Your task to perform on an android device: Show me recent news Image 0: 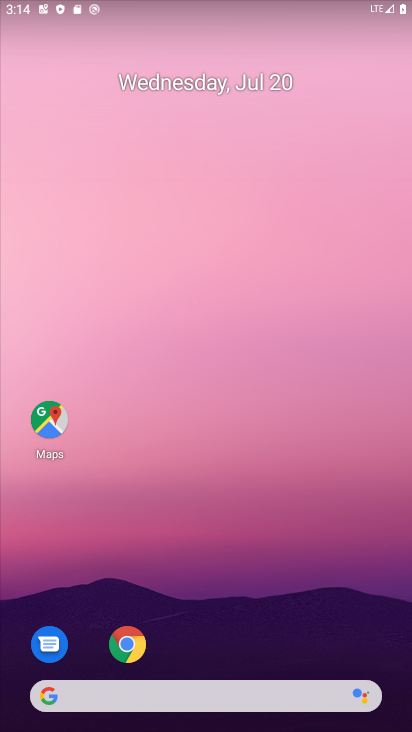
Step 0: click (118, 695)
Your task to perform on an android device: Show me recent news Image 1: 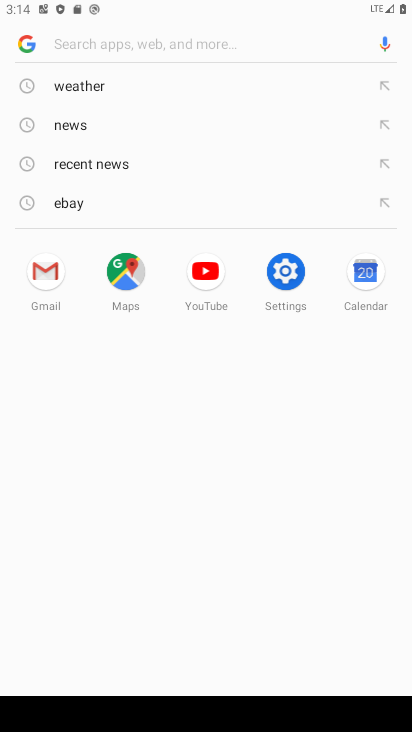
Step 1: type " recent news"
Your task to perform on an android device: Show me recent news Image 2: 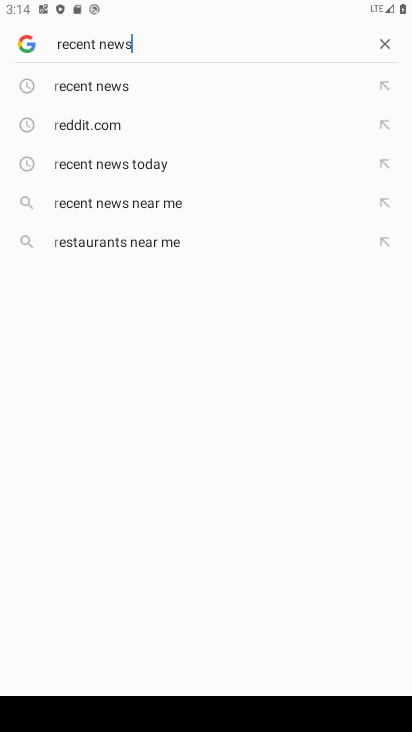
Step 2: type ""
Your task to perform on an android device: Show me recent news Image 3: 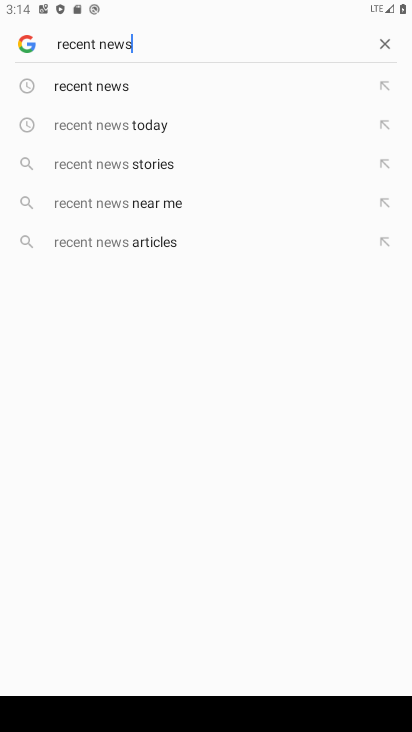
Step 3: click (85, 78)
Your task to perform on an android device: Show me recent news Image 4: 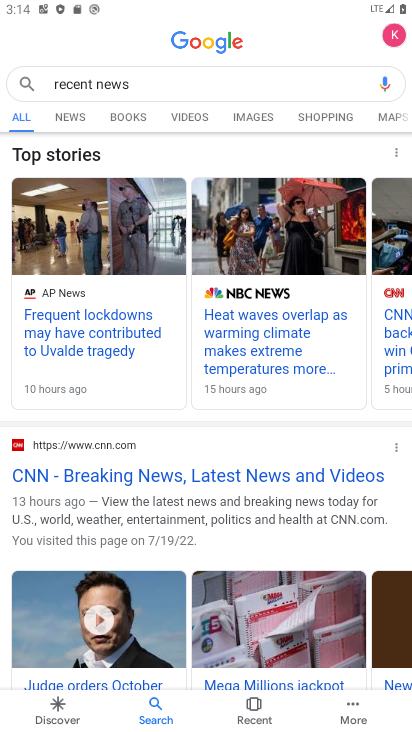
Step 4: task complete